Your task to perform on an android device: choose inbox layout in the gmail app Image 0: 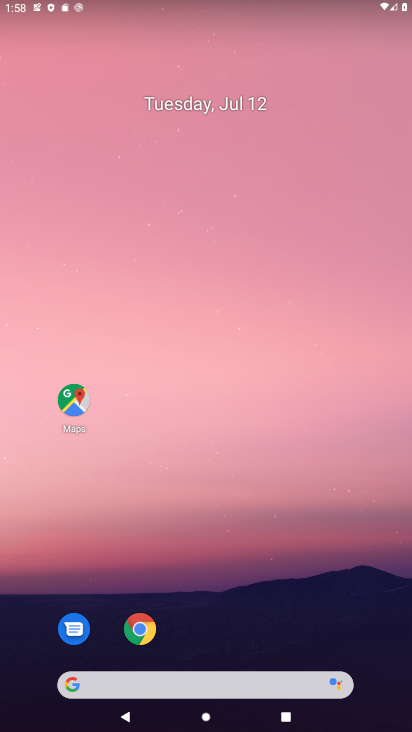
Step 0: drag from (272, 619) to (226, 239)
Your task to perform on an android device: choose inbox layout in the gmail app Image 1: 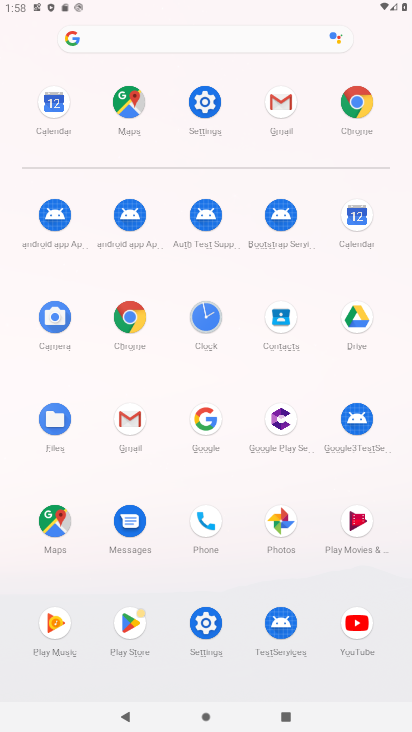
Step 1: click (284, 100)
Your task to perform on an android device: choose inbox layout in the gmail app Image 2: 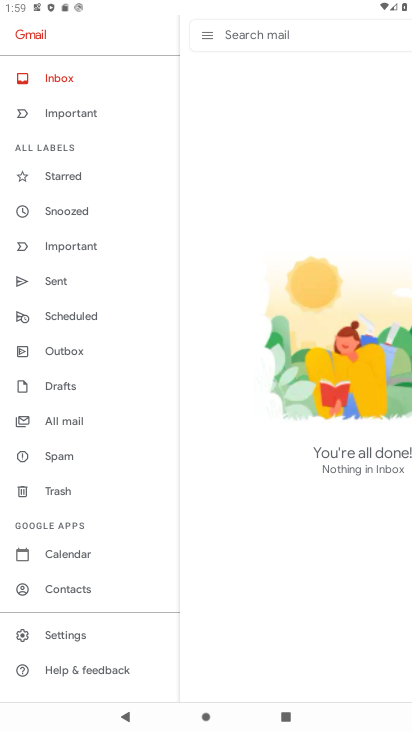
Step 2: click (77, 640)
Your task to perform on an android device: choose inbox layout in the gmail app Image 3: 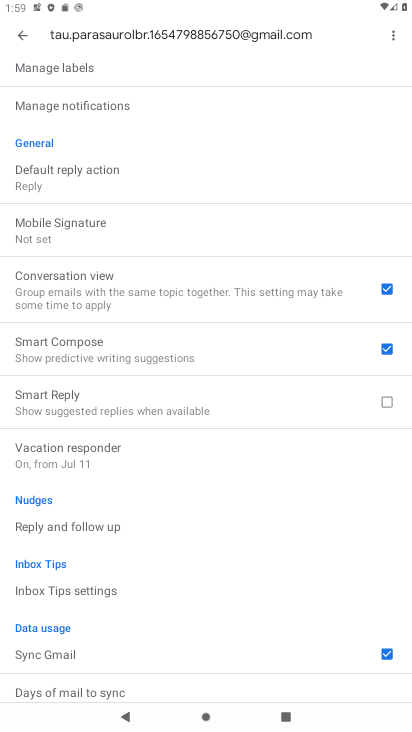
Step 3: drag from (202, 126) to (162, 404)
Your task to perform on an android device: choose inbox layout in the gmail app Image 4: 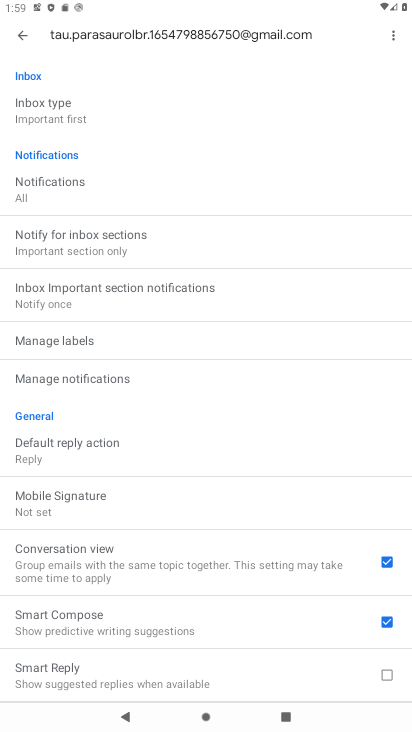
Step 4: click (108, 96)
Your task to perform on an android device: choose inbox layout in the gmail app Image 5: 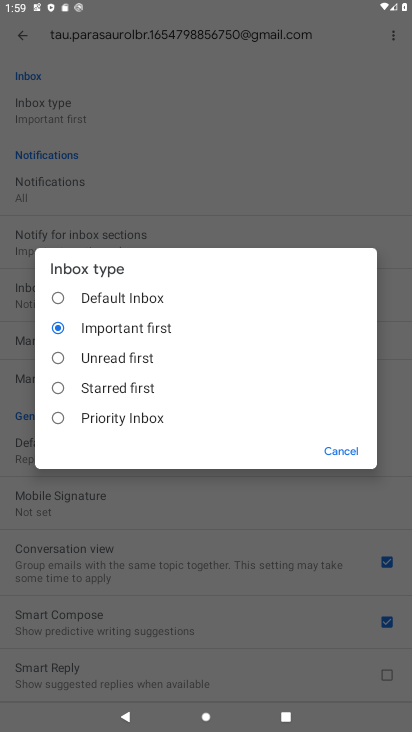
Step 5: click (141, 351)
Your task to perform on an android device: choose inbox layout in the gmail app Image 6: 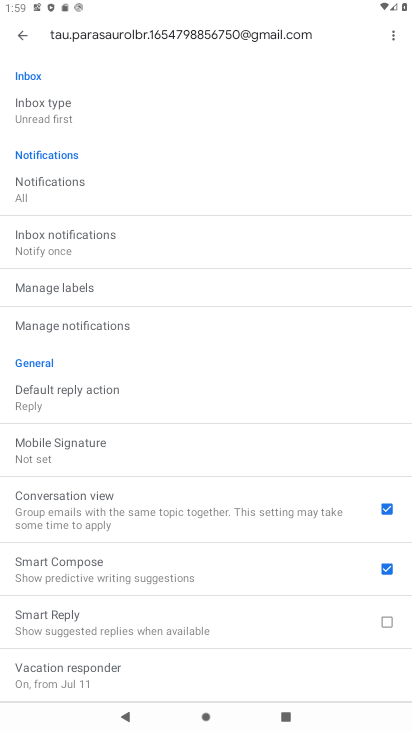
Step 6: task complete